Your task to perform on an android device: Open the web browser Image 0: 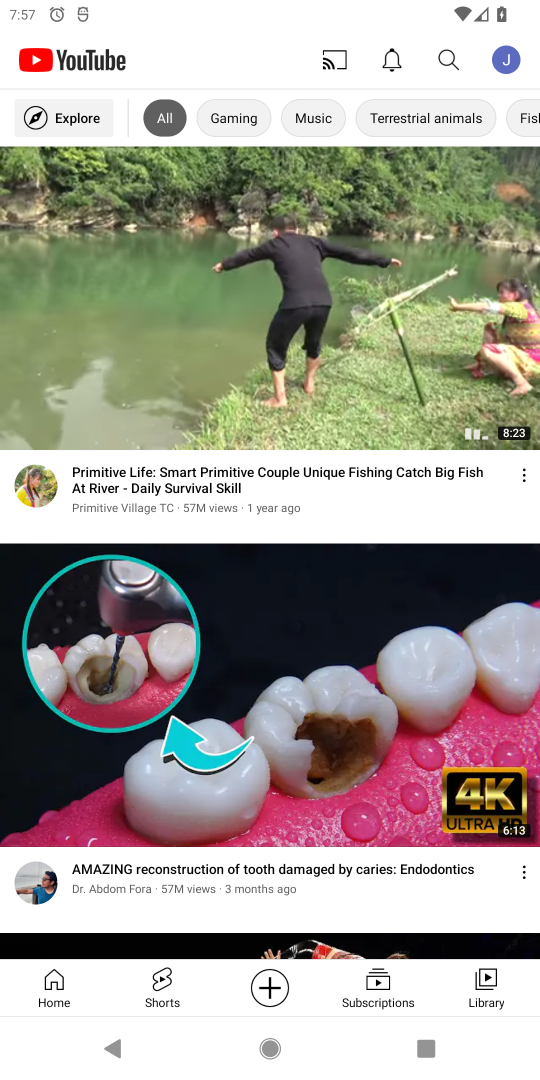
Step 0: press home button
Your task to perform on an android device: Open the web browser Image 1: 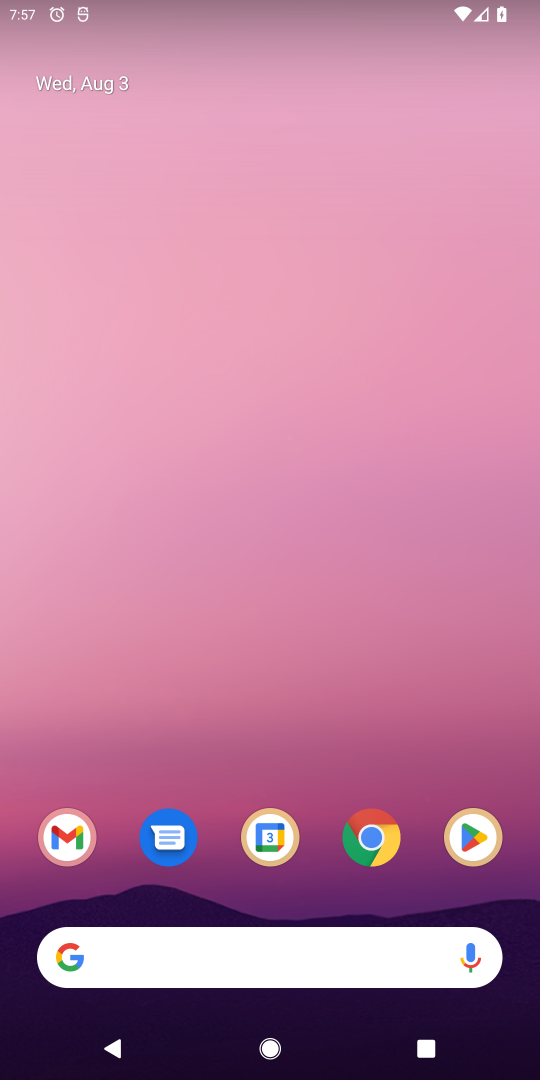
Step 1: click (68, 956)
Your task to perform on an android device: Open the web browser Image 2: 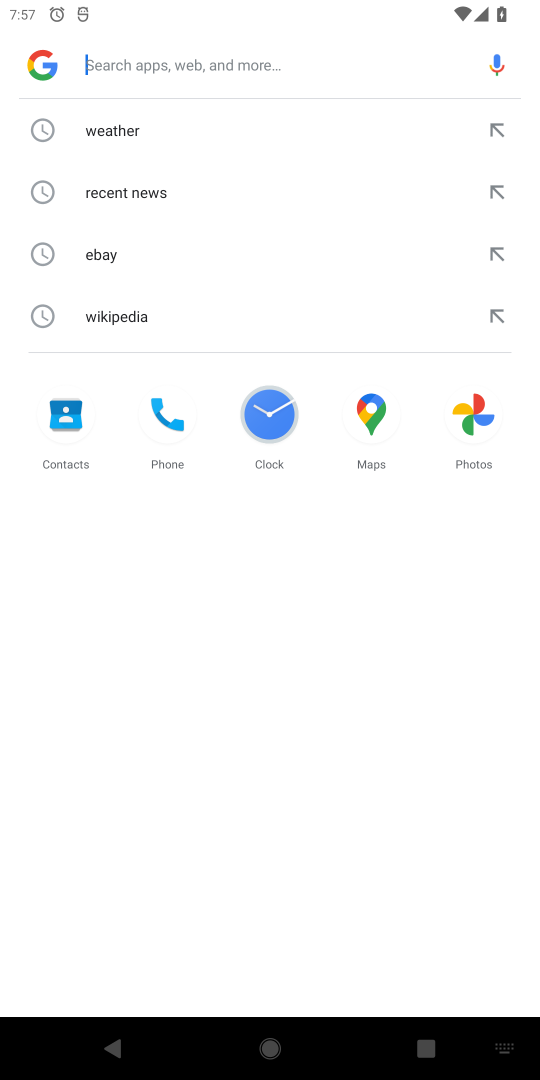
Step 2: task complete